Your task to perform on an android device: change timer sound Image 0: 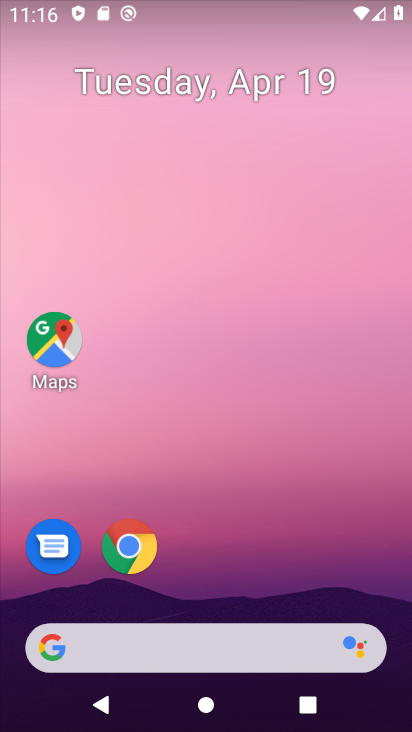
Step 0: drag from (387, 489) to (303, 35)
Your task to perform on an android device: change timer sound Image 1: 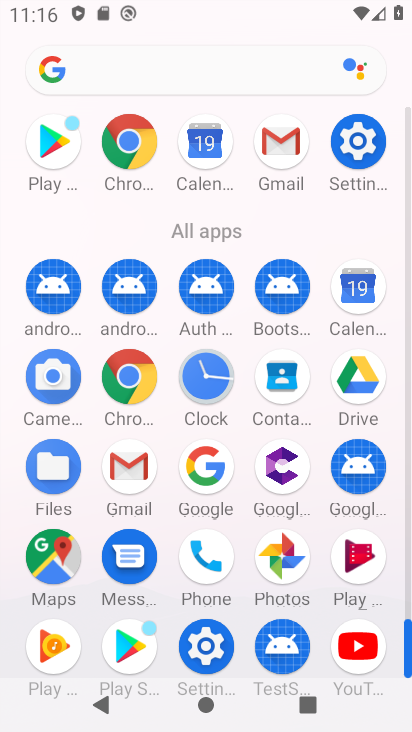
Step 1: drag from (6, 582) to (2, 351)
Your task to perform on an android device: change timer sound Image 2: 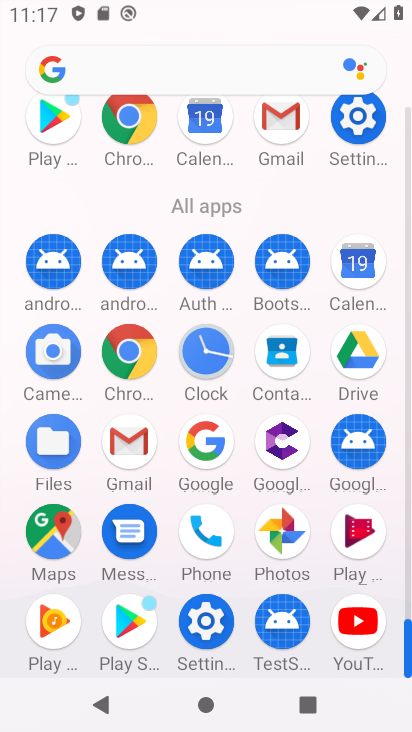
Step 2: click (203, 351)
Your task to perform on an android device: change timer sound Image 3: 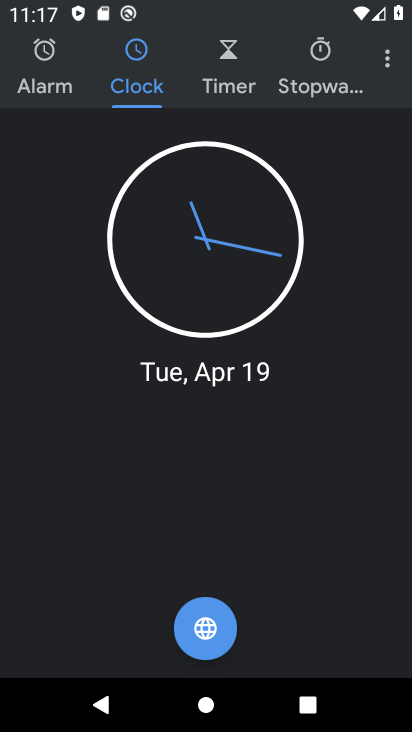
Step 3: click (387, 73)
Your task to perform on an android device: change timer sound Image 4: 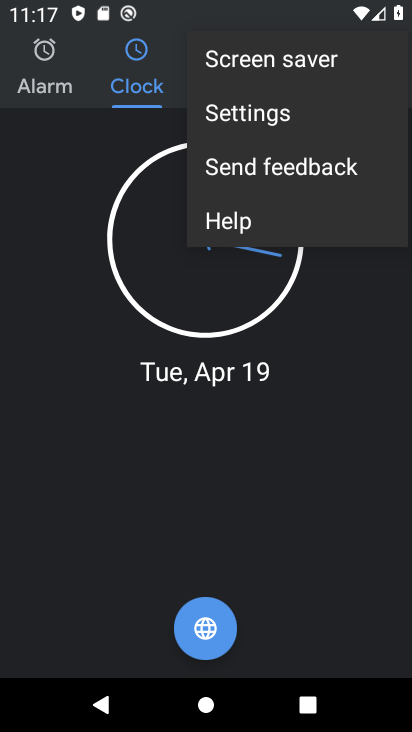
Step 4: click (278, 115)
Your task to perform on an android device: change timer sound Image 5: 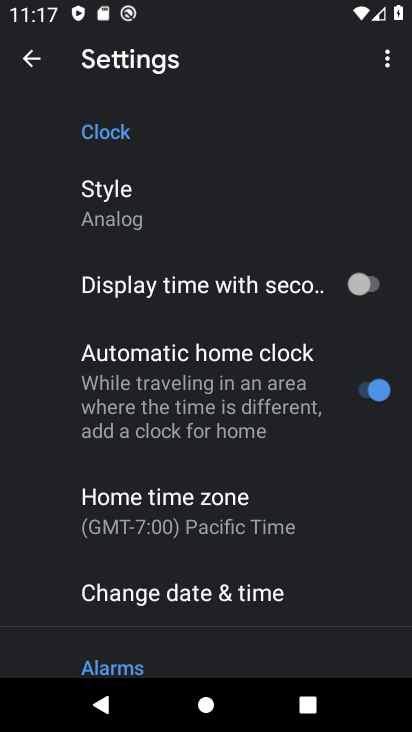
Step 5: drag from (204, 480) to (202, 163)
Your task to perform on an android device: change timer sound Image 6: 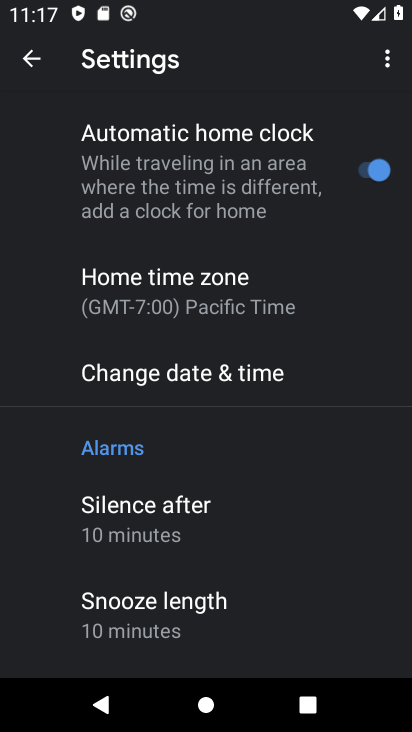
Step 6: drag from (195, 602) to (223, 201)
Your task to perform on an android device: change timer sound Image 7: 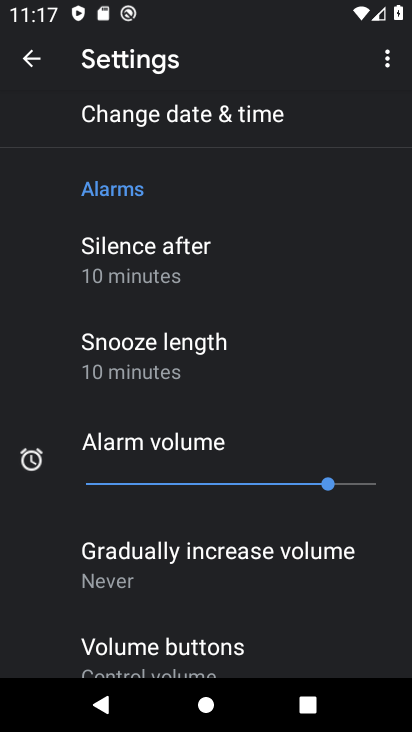
Step 7: drag from (216, 496) to (215, 202)
Your task to perform on an android device: change timer sound Image 8: 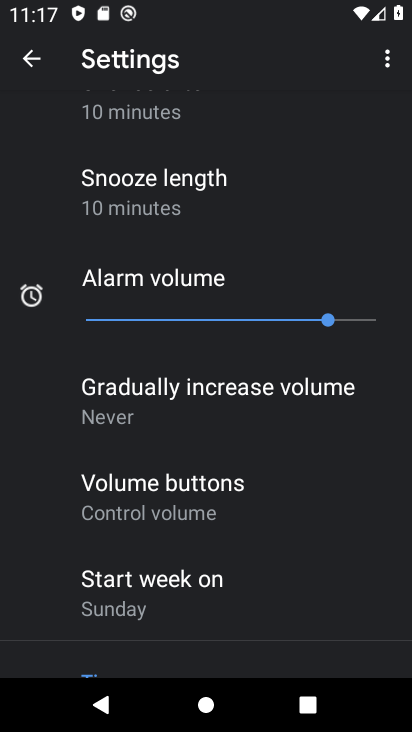
Step 8: drag from (218, 524) to (244, 179)
Your task to perform on an android device: change timer sound Image 9: 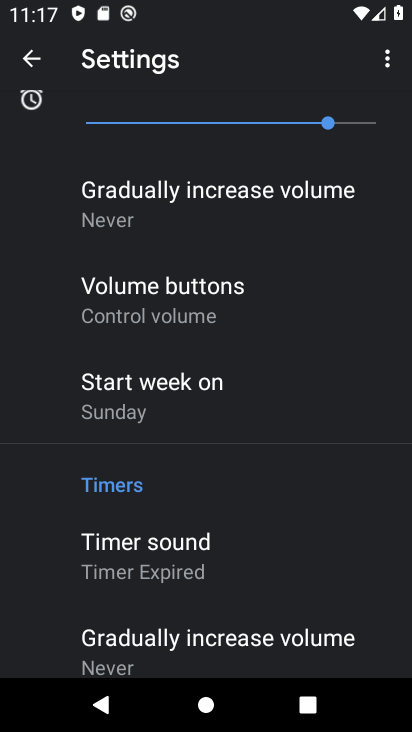
Step 9: click (197, 565)
Your task to perform on an android device: change timer sound Image 10: 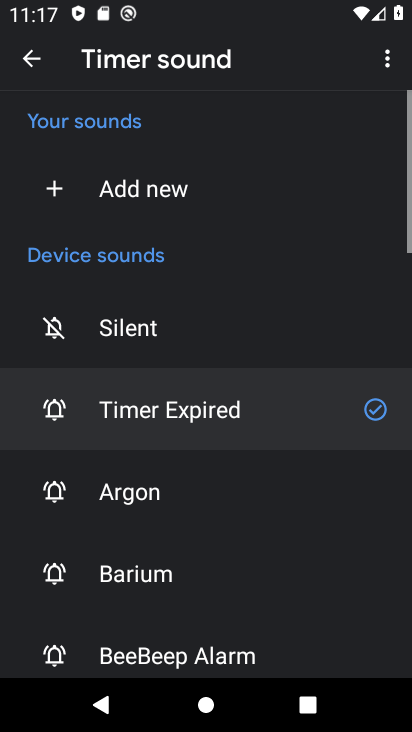
Step 10: drag from (220, 460) to (234, 209)
Your task to perform on an android device: change timer sound Image 11: 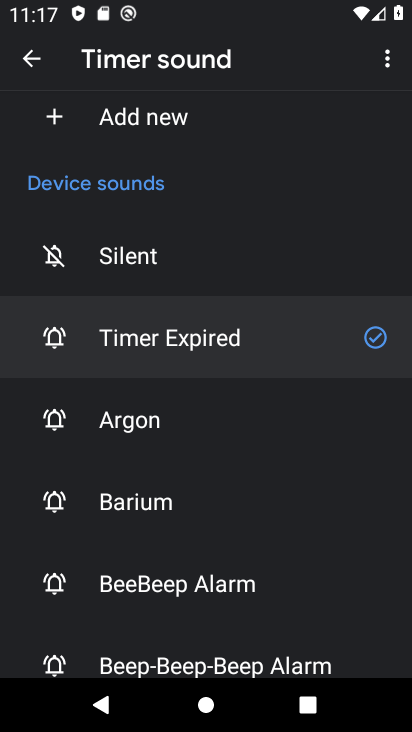
Step 11: click (245, 637)
Your task to perform on an android device: change timer sound Image 12: 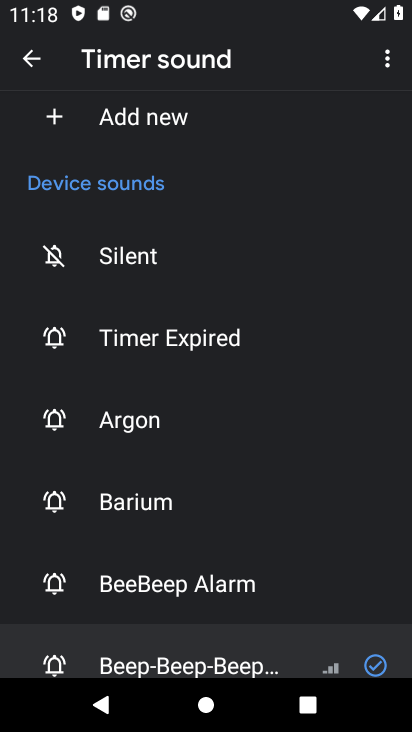
Step 12: task complete